Your task to perform on an android device: turn vacation reply on in the gmail app Image 0: 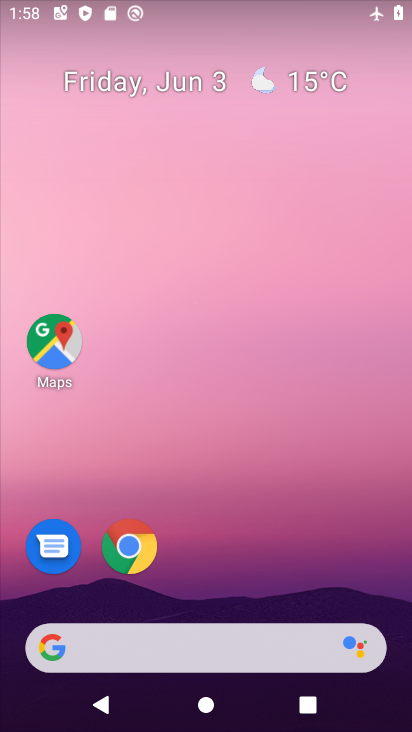
Step 0: drag from (293, 448) to (340, 8)
Your task to perform on an android device: turn vacation reply on in the gmail app Image 1: 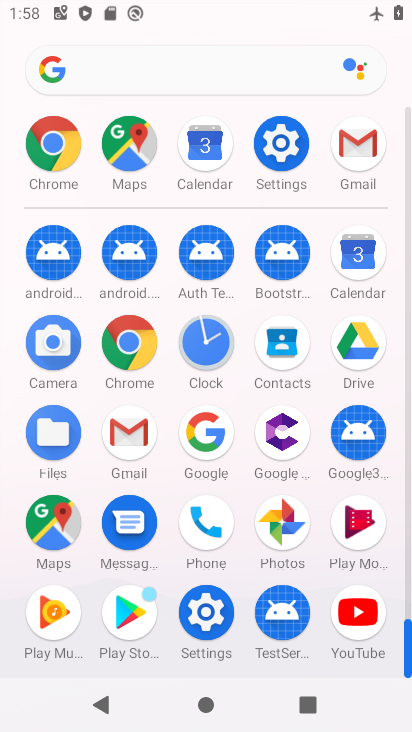
Step 1: click (368, 148)
Your task to perform on an android device: turn vacation reply on in the gmail app Image 2: 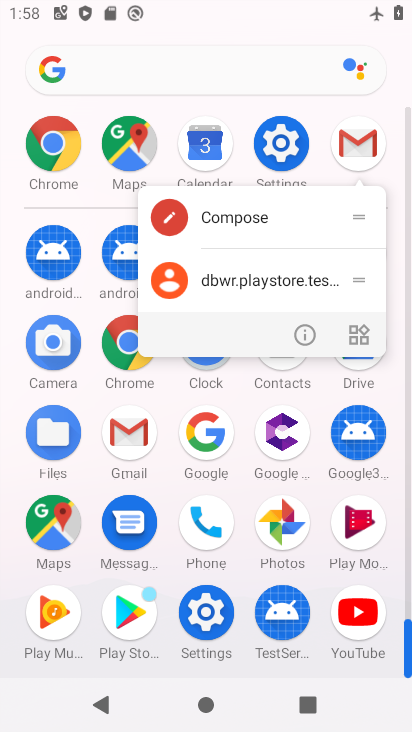
Step 2: click (341, 139)
Your task to perform on an android device: turn vacation reply on in the gmail app Image 3: 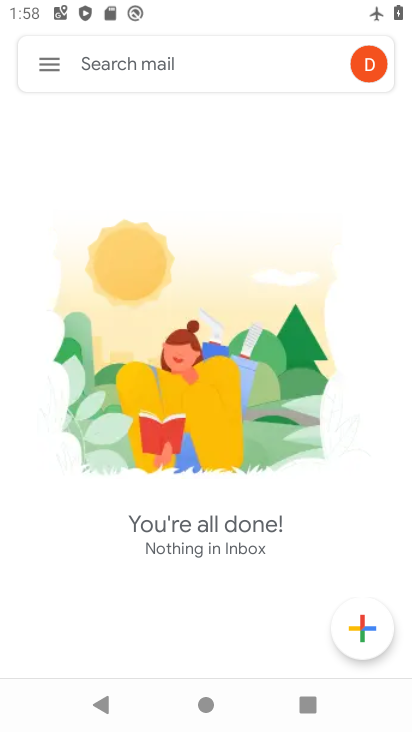
Step 3: click (58, 70)
Your task to perform on an android device: turn vacation reply on in the gmail app Image 4: 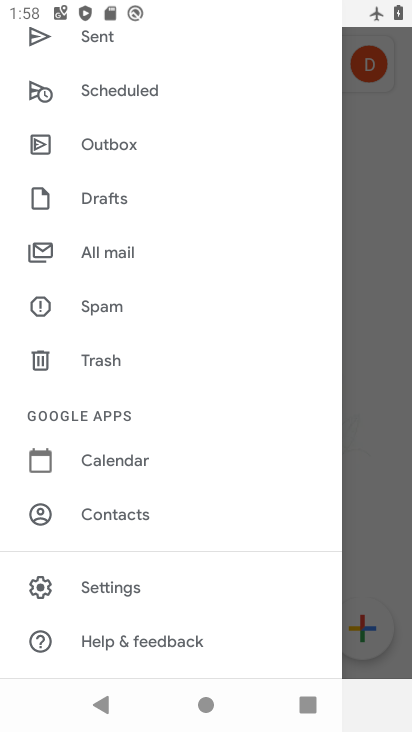
Step 4: drag from (143, 559) to (204, 204)
Your task to perform on an android device: turn vacation reply on in the gmail app Image 5: 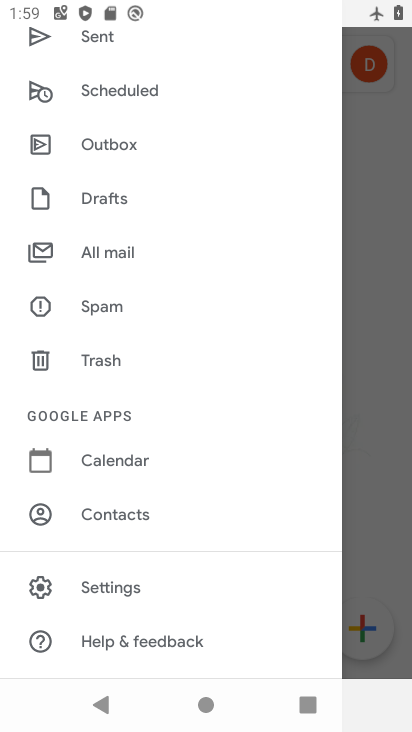
Step 5: click (138, 589)
Your task to perform on an android device: turn vacation reply on in the gmail app Image 6: 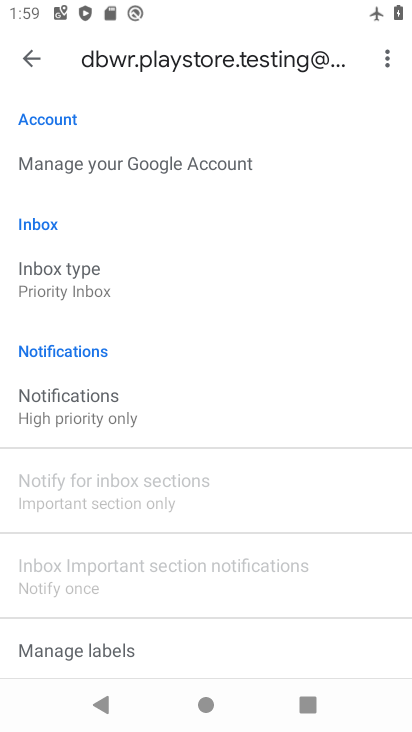
Step 6: drag from (152, 576) to (157, 119)
Your task to perform on an android device: turn vacation reply on in the gmail app Image 7: 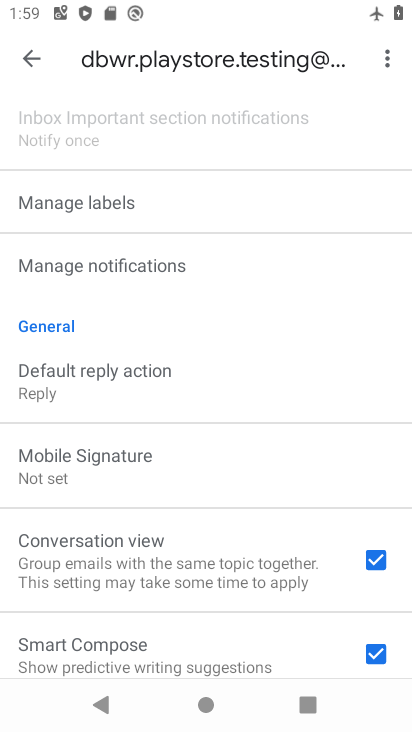
Step 7: drag from (186, 575) to (253, 132)
Your task to perform on an android device: turn vacation reply on in the gmail app Image 8: 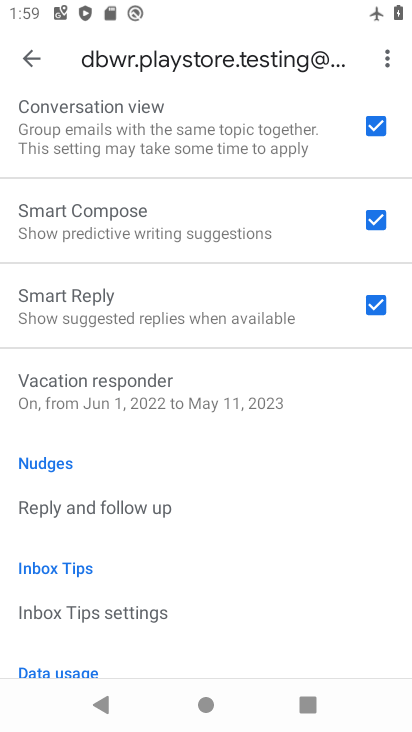
Step 8: drag from (220, 551) to (247, 146)
Your task to perform on an android device: turn vacation reply on in the gmail app Image 9: 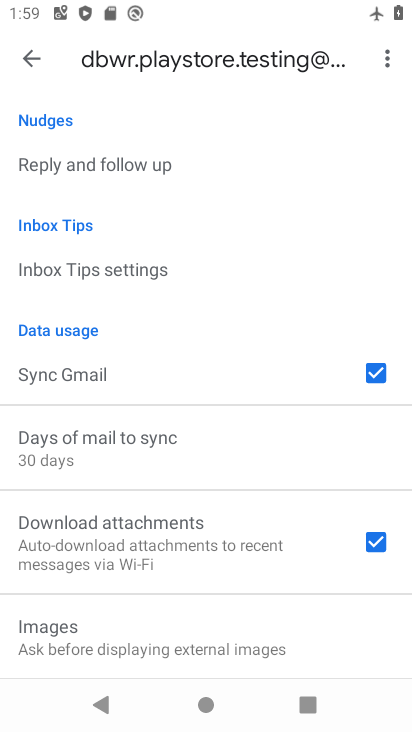
Step 9: drag from (287, 566) to (263, 246)
Your task to perform on an android device: turn vacation reply on in the gmail app Image 10: 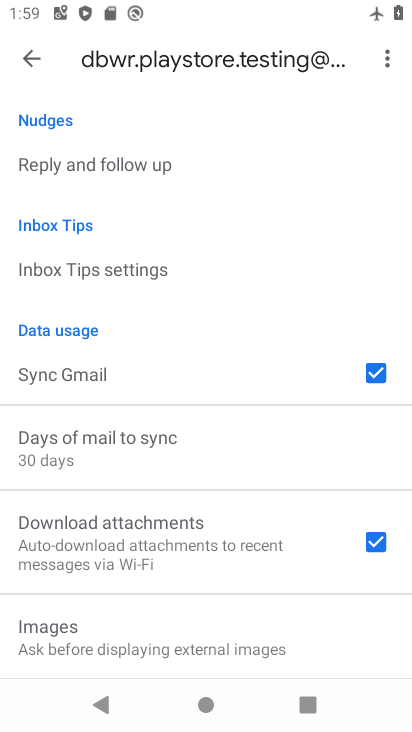
Step 10: drag from (139, 604) to (188, 256)
Your task to perform on an android device: turn vacation reply on in the gmail app Image 11: 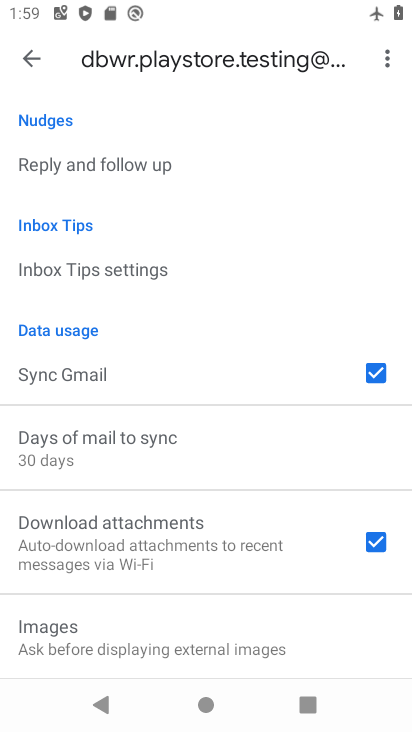
Step 11: drag from (189, 272) to (257, 659)
Your task to perform on an android device: turn vacation reply on in the gmail app Image 12: 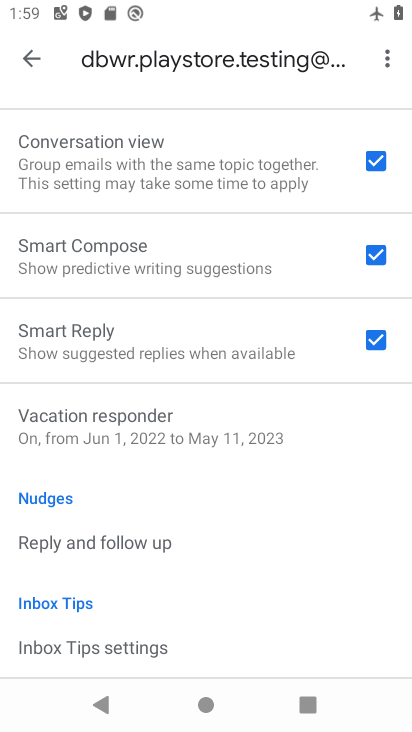
Step 12: click (159, 404)
Your task to perform on an android device: turn vacation reply on in the gmail app Image 13: 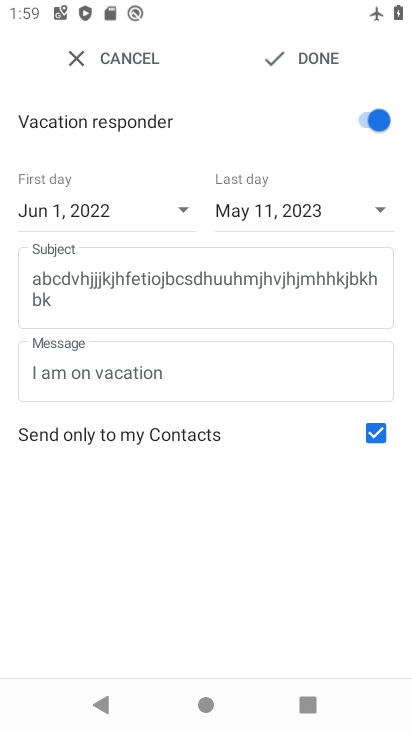
Step 13: task complete